Your task to perform on an android device: Go to Android settings Image 0: 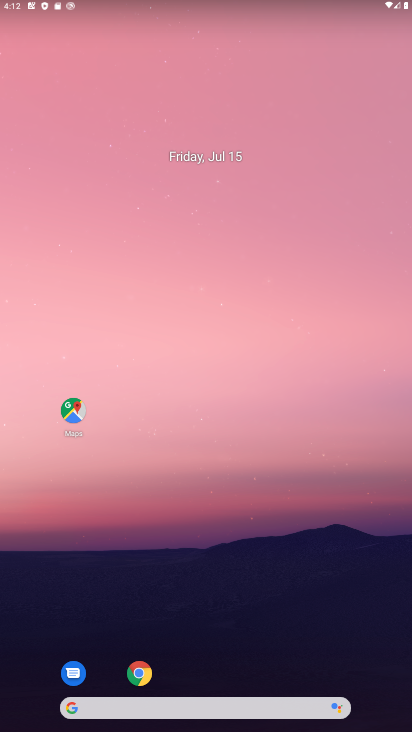
Step 0: drag from (286, 622) to (269, 240)
Your task to perform on an android device: Go to Android settings Image 1: 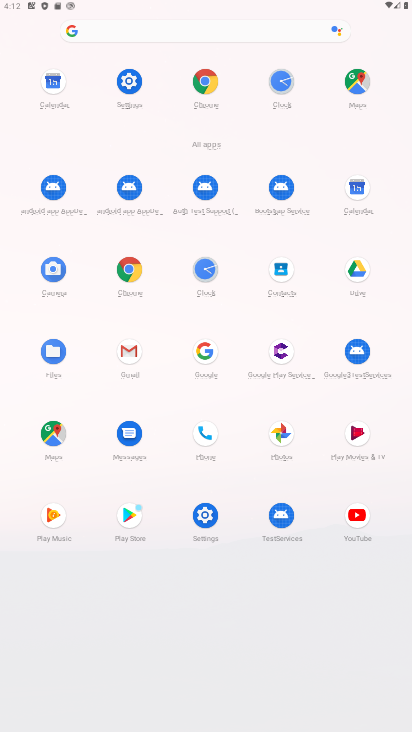
Step 1: click (125, 77)
Your task to perform on an android device: Go to Android settings Image 2: 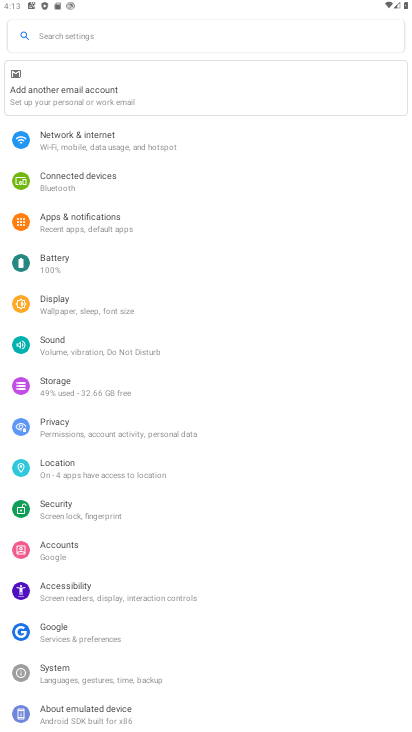
Step 2: task complete